Your task to perform on an android device: Open CNN.com Image 0: 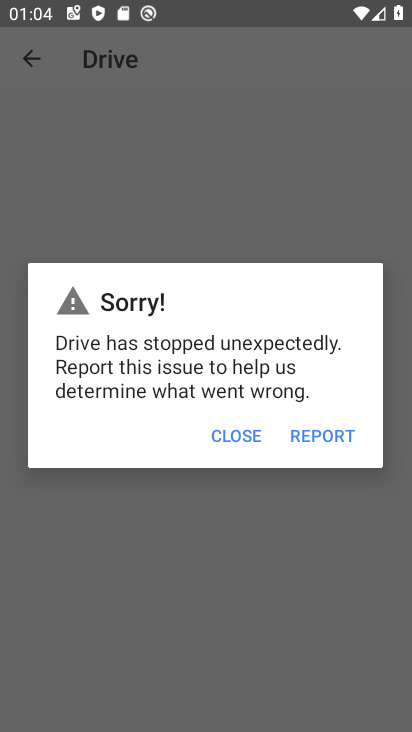
Step 0: press back button
Your task to perform on an android device: Open CNN.com Image 1: 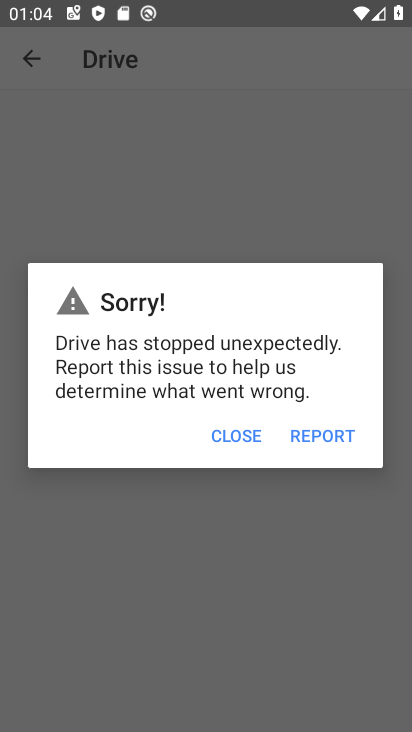
Step 1: press back button
Your task to perform on an android device: Open CNN.com Image 2: 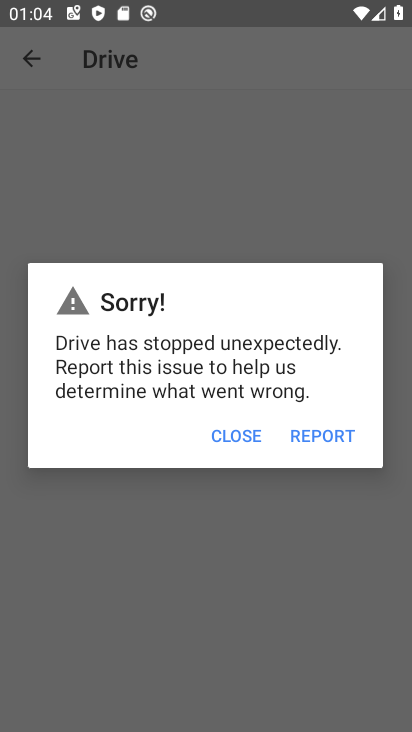
Step 2: press back button
Your task to perform on an android device: Open CNN.com Image 3: 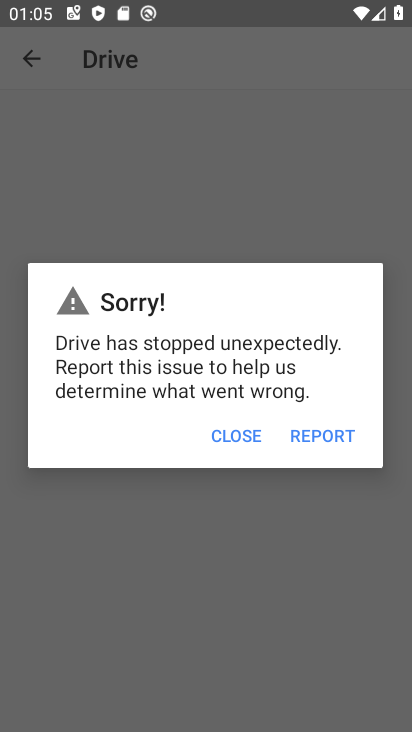
Step 3: press home button
Your task to perform on an android device: Open CNN.com Image 4: 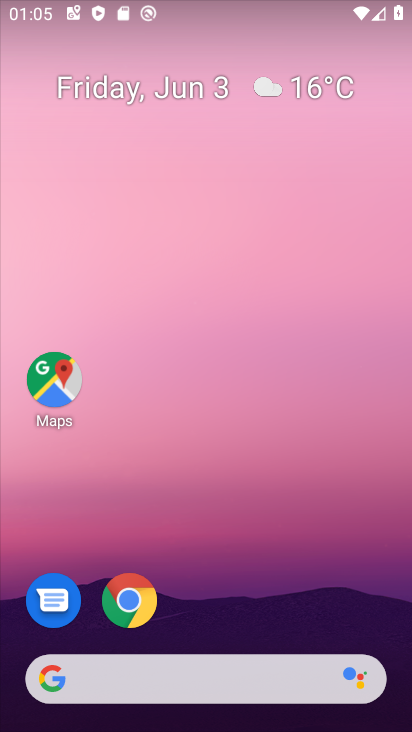
Step 4: drag from (252, 569) to (240, 27)
Your task to perform on an android device: Open CNN.com Image 5: 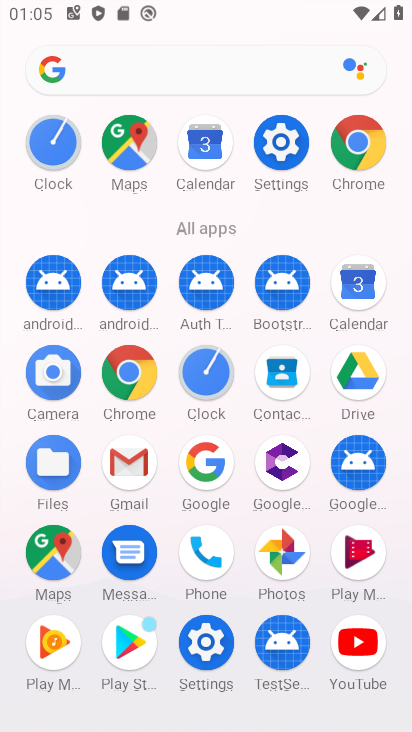
Step 5: click (128, 365)
Your task to perform on an android device: Open CNN.com Image 6: 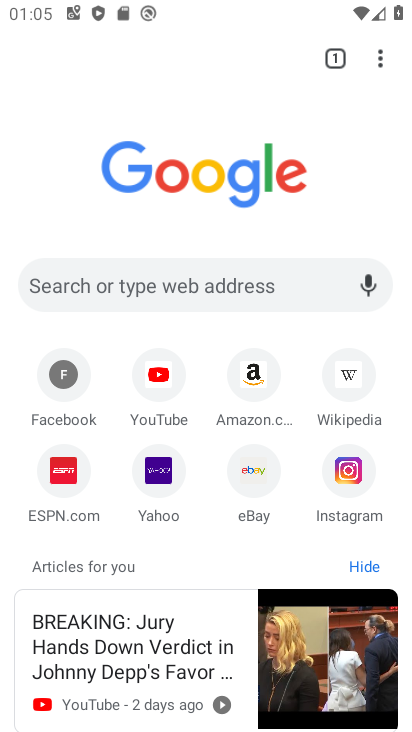
Step 6: click (169, 268)
Your task to perform on an android device: Open CNN.com Image 7: 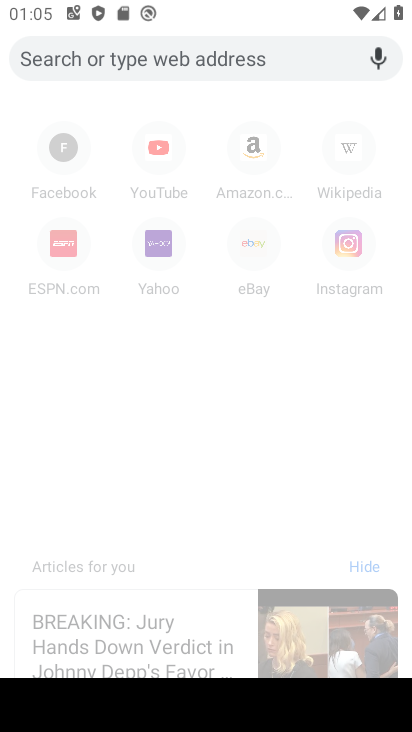
Step 7: type "CNN.com"
Your task to perform on an android device: Open CNN.com Image 8: 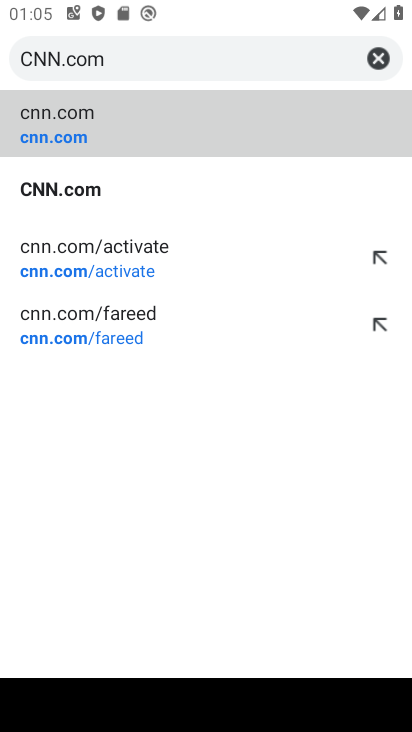
Step 8: click (65, 138)
Your task to perform on an android device: Open CNN.com Image 9: 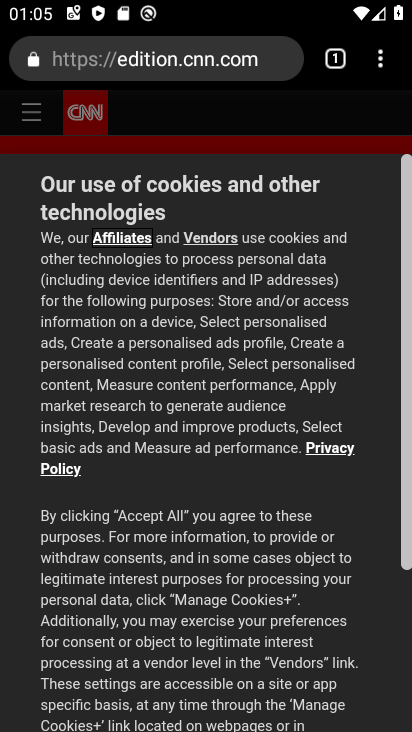
Step 9: task complete